Your task to perform on an android device: install app "Google Play Games" Image 0: 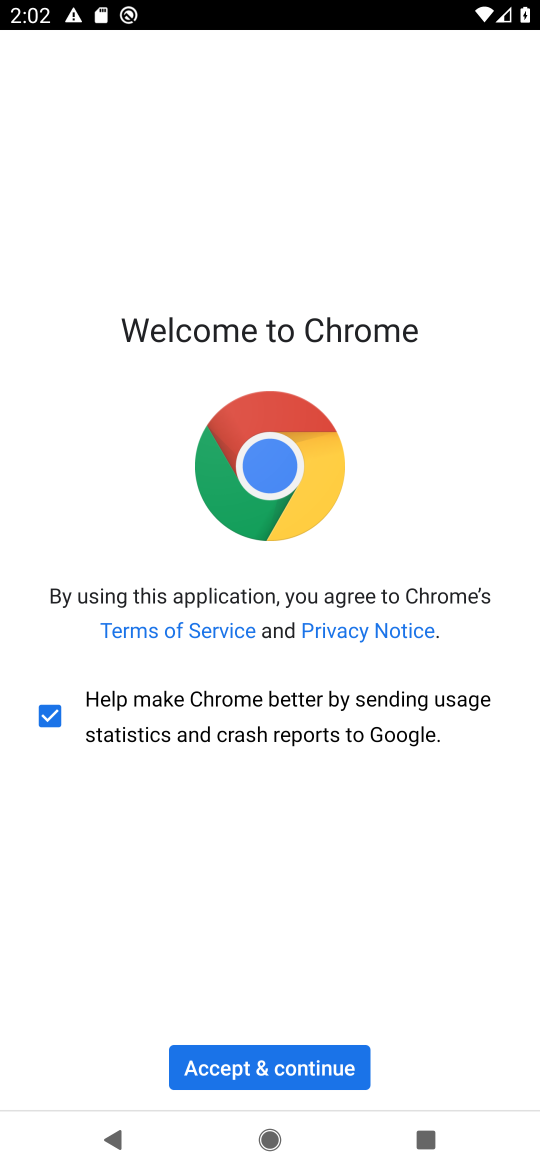
Step 0: press home button
Your task to perform on an android device: install app "Google Play Games" Image 1: 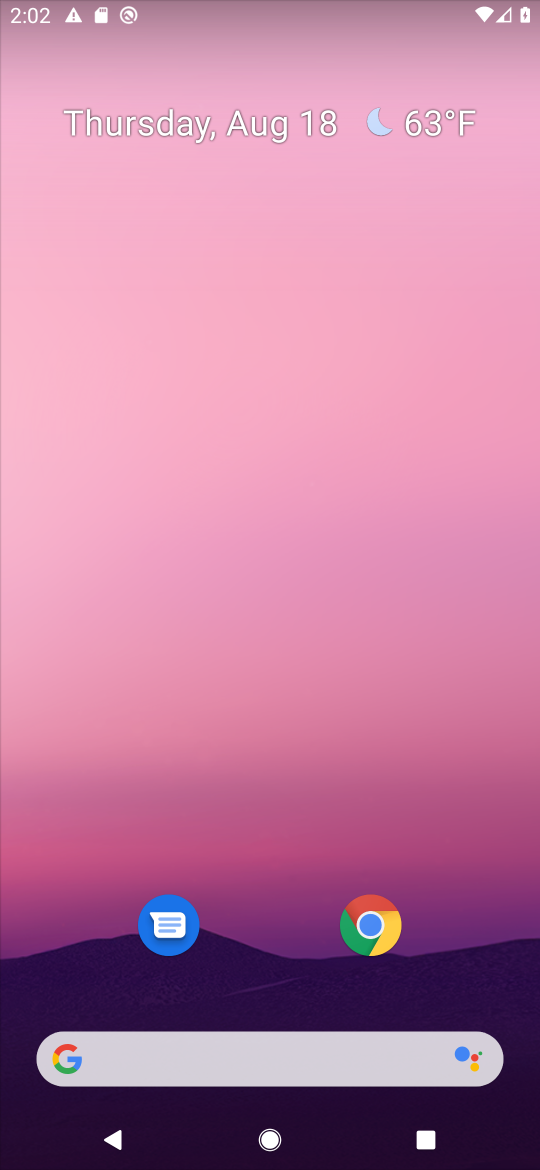
Step 1: drag from (209, 762) to (271, 155)
Your task to perform on an android device: install app "Google Play Games" Image 2: 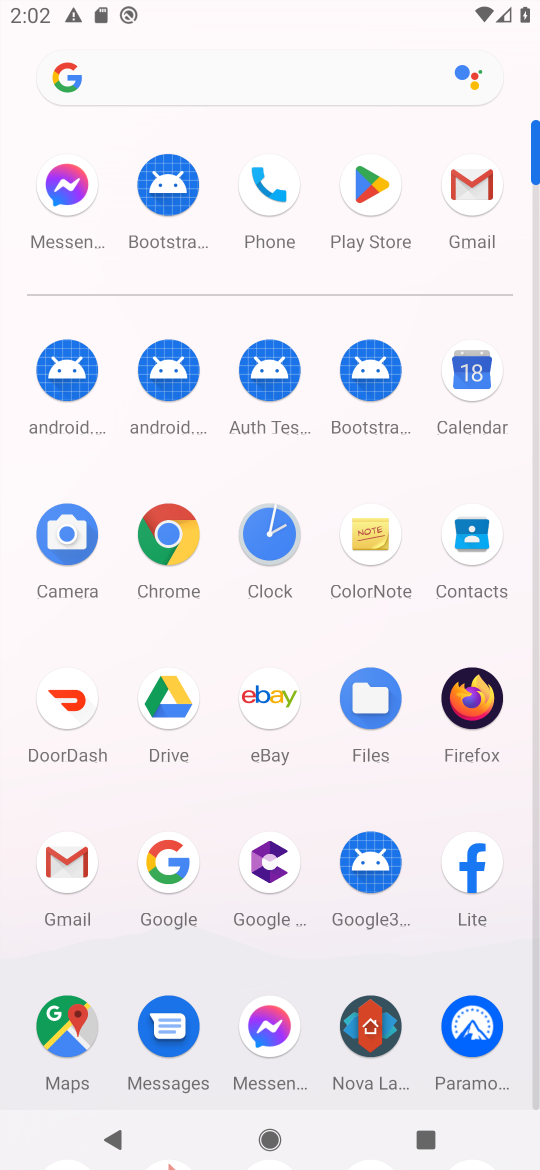
Step 2: click (376, 193)
Your task to perform on an android device: install app "Google Play Games" Image 3: 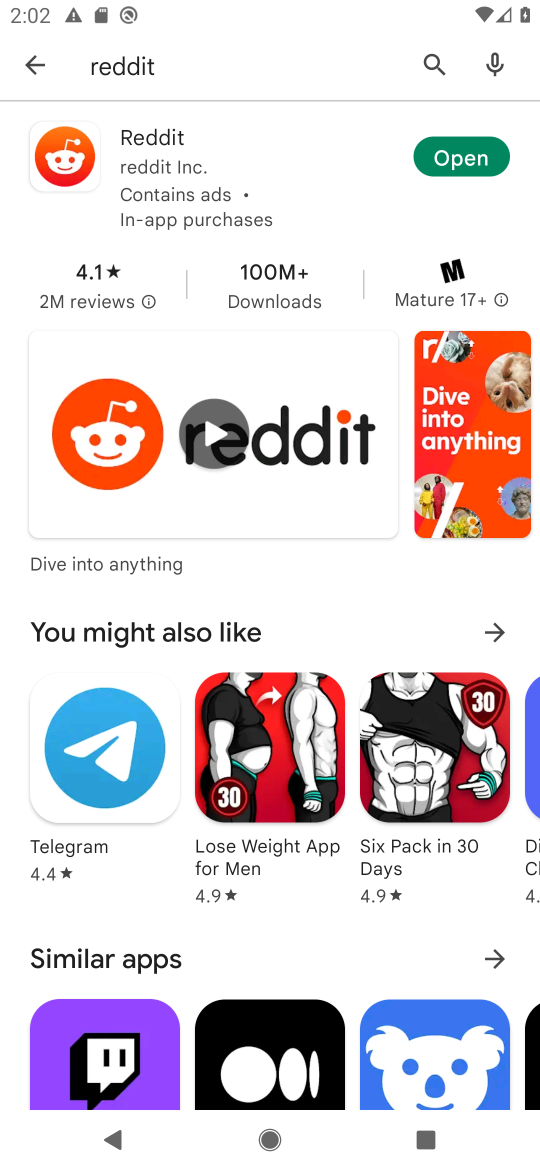
Step 3: click (40, 65)
Your task to perform on an android device: install app "Google Play Games" Image 4: 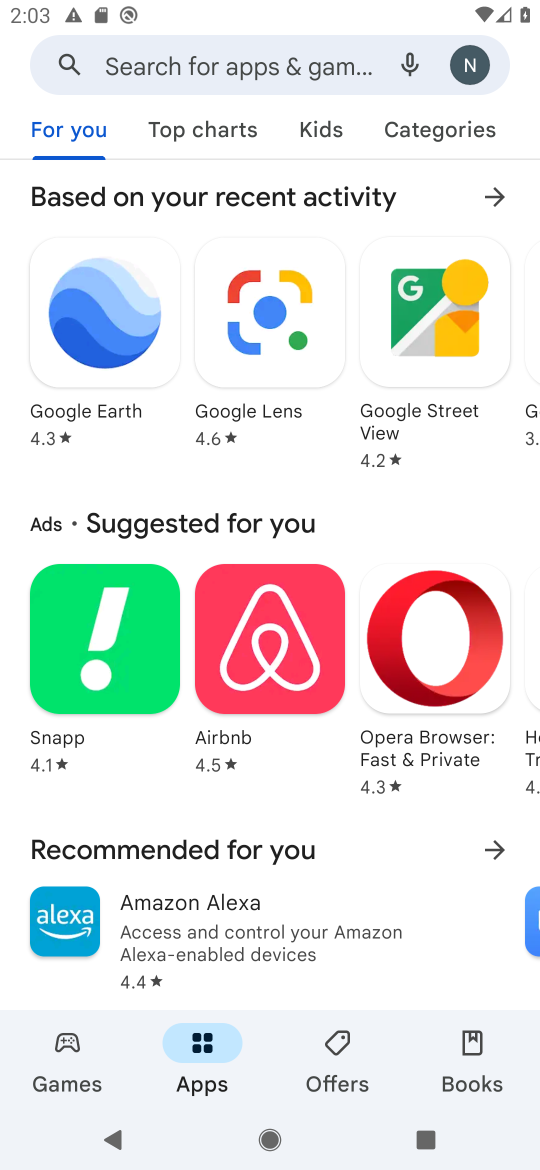
Step 4: click (199, 66)
Your task to perform on an android device: install app "Google Play Games" Image 5: 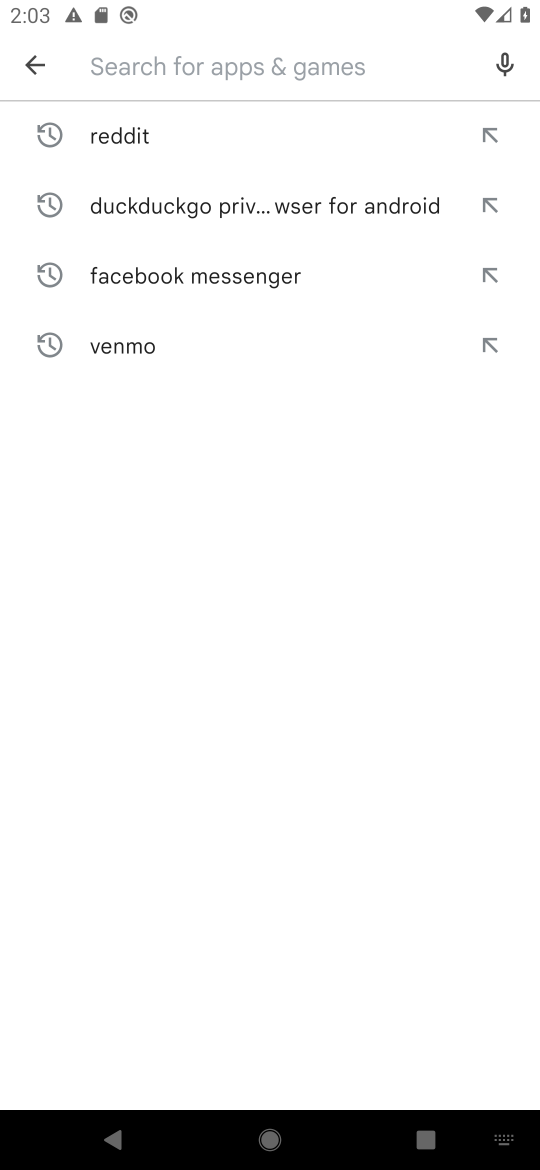
Step 5: type "Google Play Games"
Your task to perform on an android device: install app "Google Play Games" Image 6: 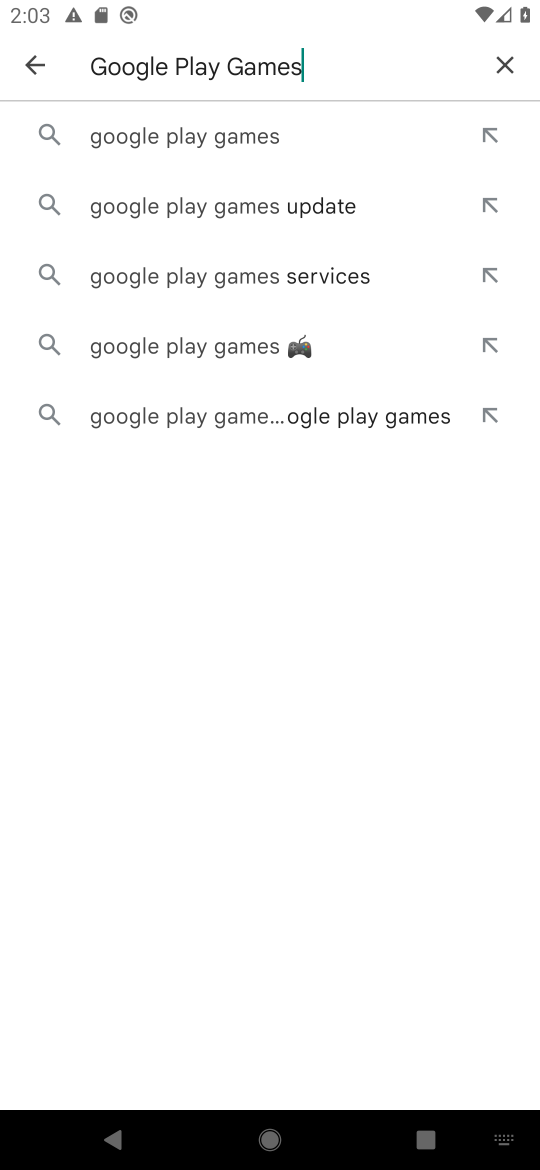
Step 6: click (131, 140)
Your task to perform on an android device: install app "Google Play Games" Image 7: 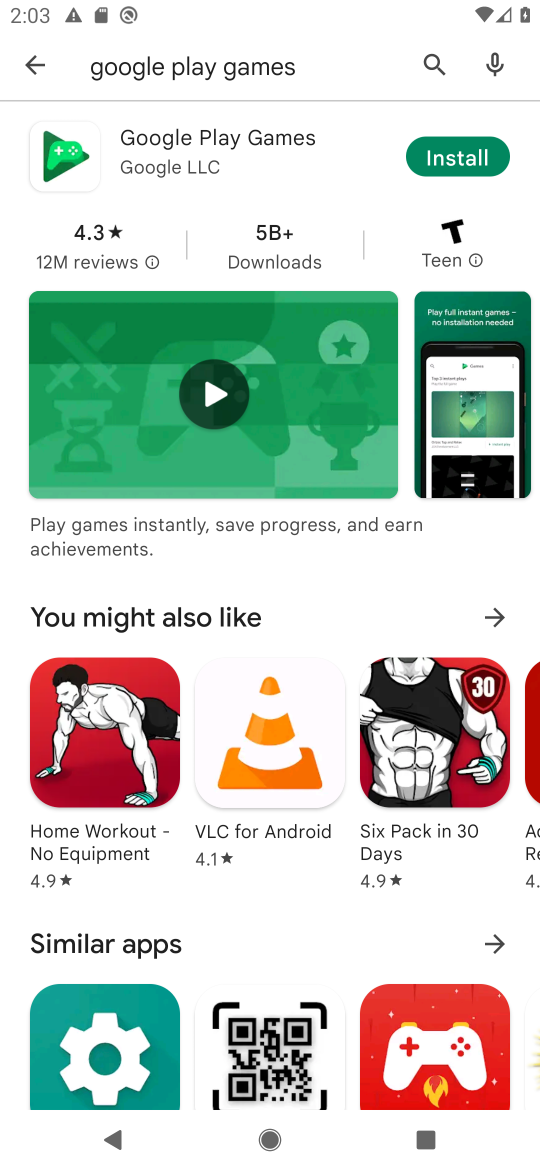
Step 7: click (439, 156)
Your task to perform on an android device: install app "Google Play Games" Image 8: 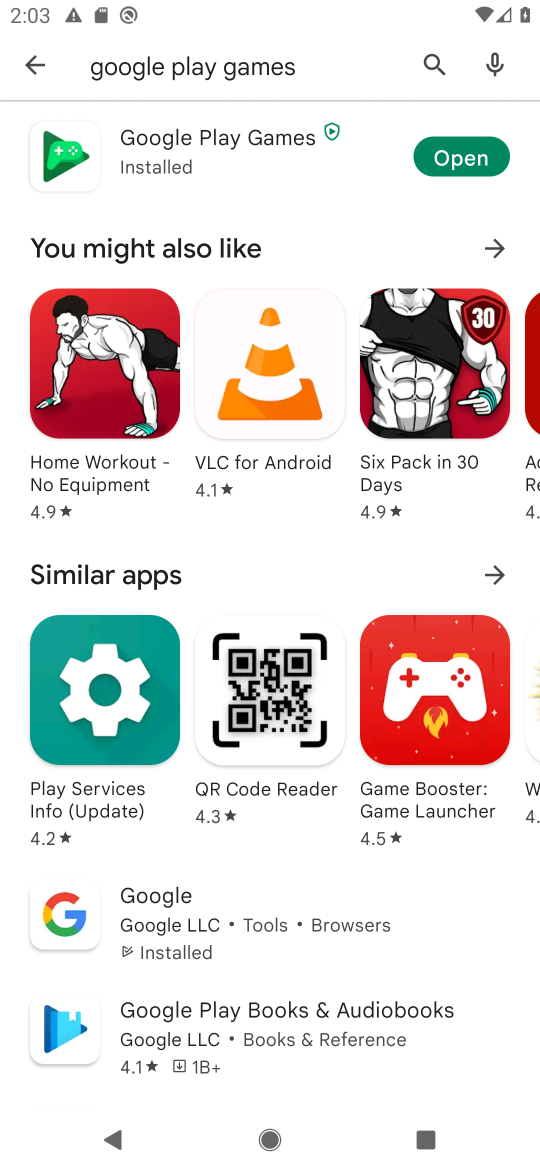
Step 8: click (439, 156)
Your task to perform on an android device: install app "Google Play Games" Image 9: 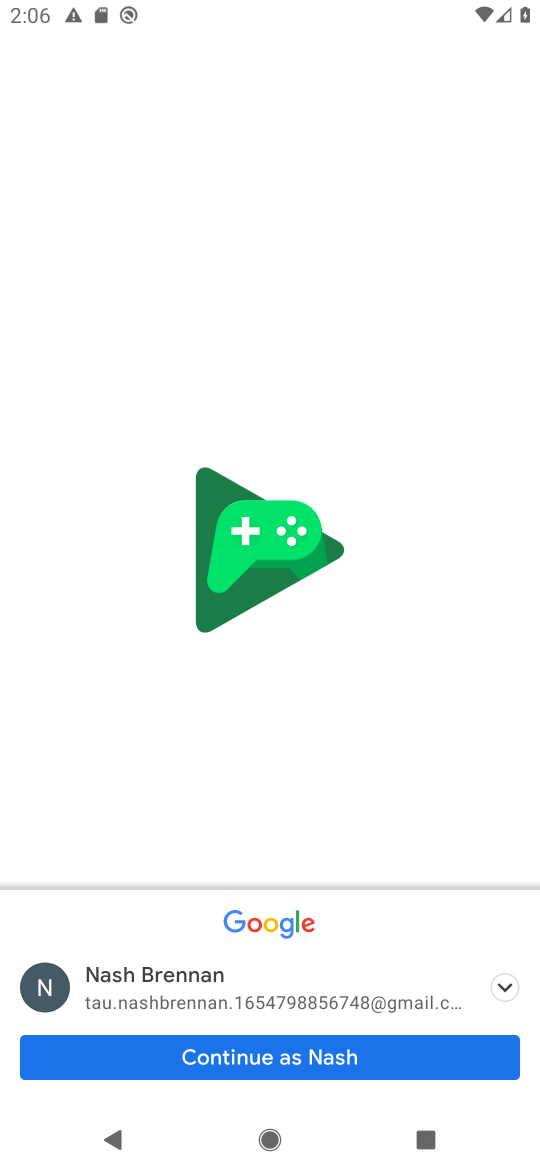
Step 9: click (231, 1046)
Your task to perform on an android device: install app "Google Play Games" Image 10: 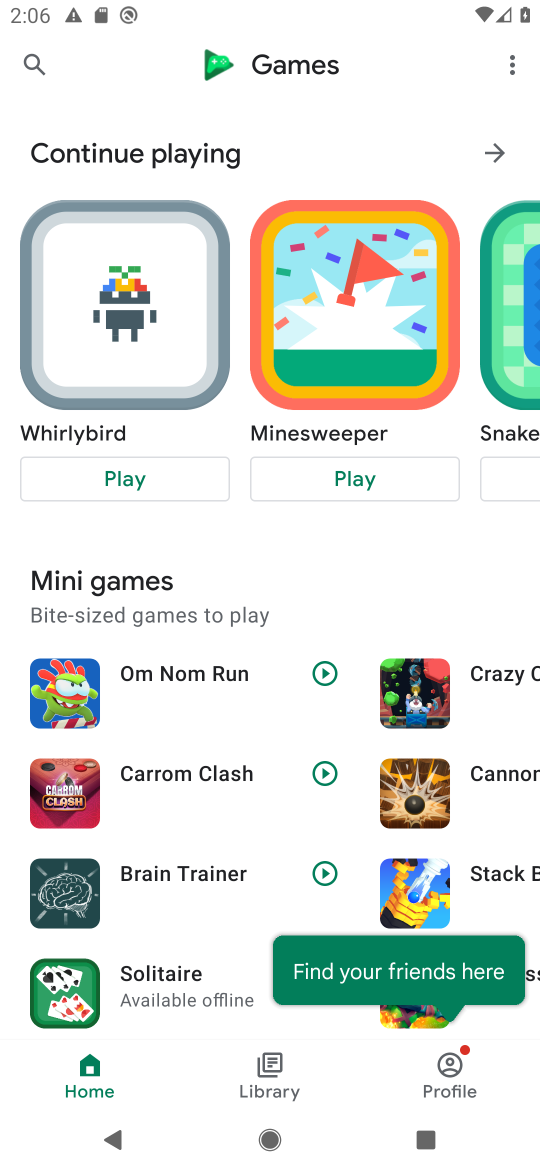
Step 10: task complete